Your task to perform on an android device: Go to Reddit.com Image 0: 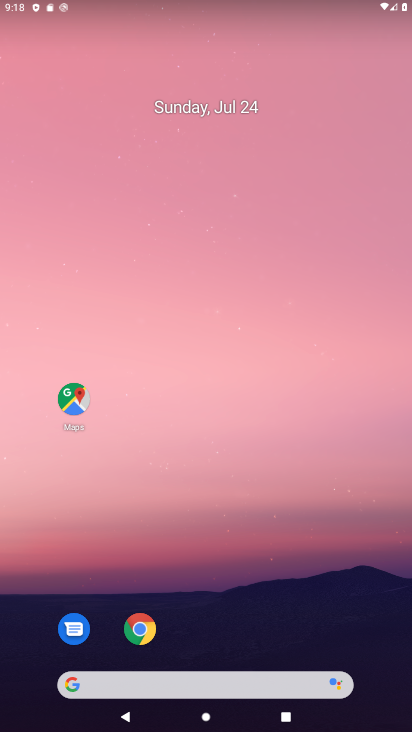
Step 0: click (171, 680)
Your task to perform on an android device: Go to Reddit.com Image 1: 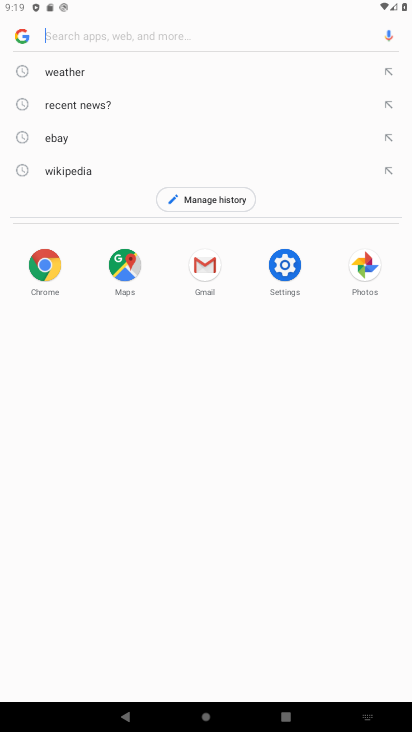
Step 1: task complete